Your task to perform on an android device: Open calendar and show me the third week of next month Image 0: 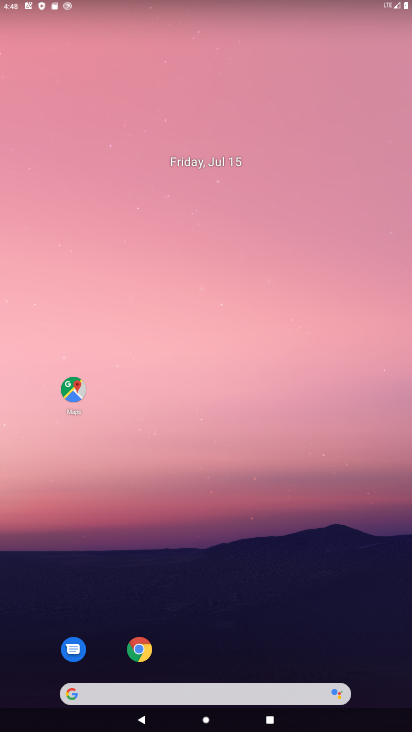
Step 0: drag from (246, 611) to (221, 157)
Your task to perform on an android device: Open calendar and show me the third week of next month Image 1: 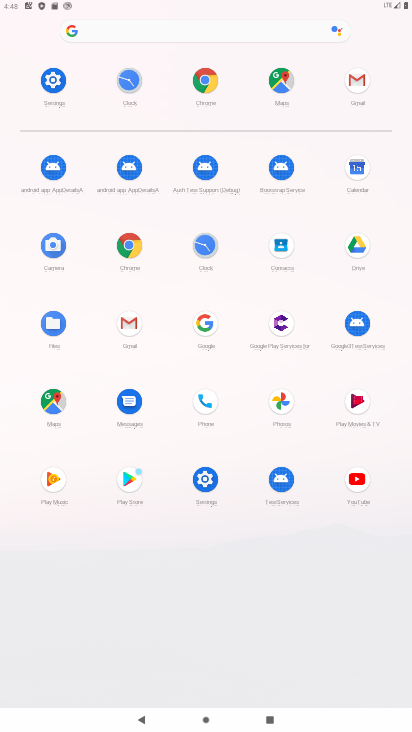
Step 1: click (363, 170)
Your task to perform on an android device: Open calendar and show me the third week of next month Image 2: 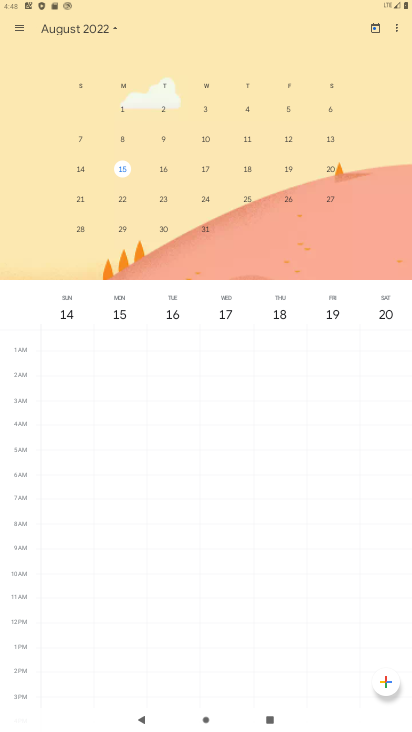
Step 2: task complete